Your task to perform on an android device: turn on location history Image 0: 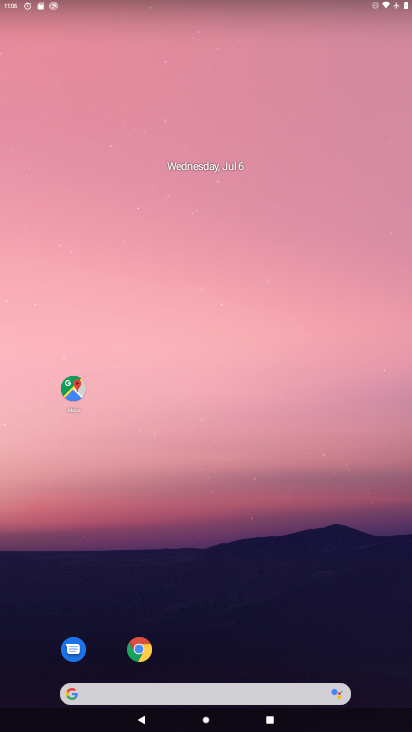
Step 0: press back button
Your task to perform on an android device: turn on location history Image 1: 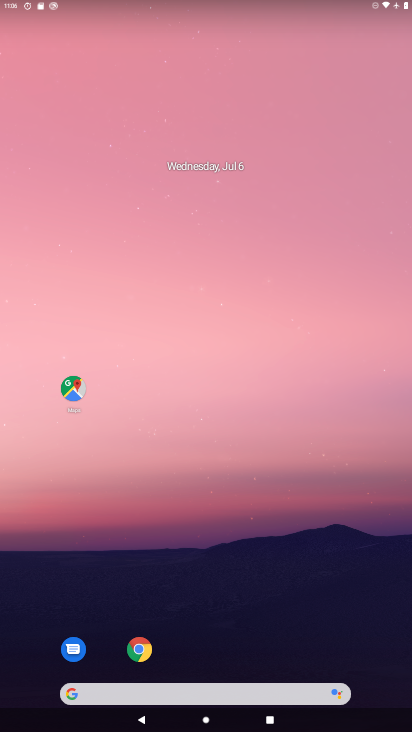
Step 1: drag from (401, 688) to (253, 43)
Your task to perform on an android device: turn on location history Image 2: 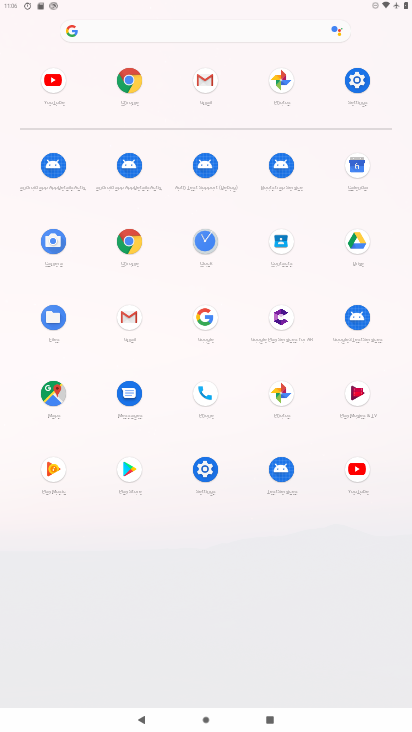
Step 2: click (355, 83)
Your task to perform on an android device: turn on location history Image 3: 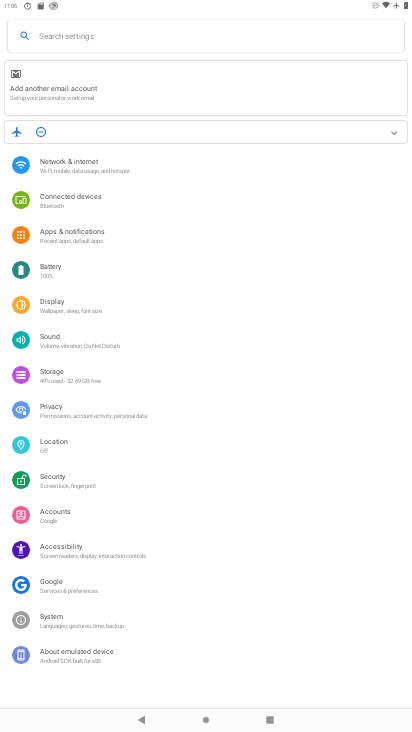
Step 3: click (52, 438)
Your task to perform on an android device: turn on location history Image 4: 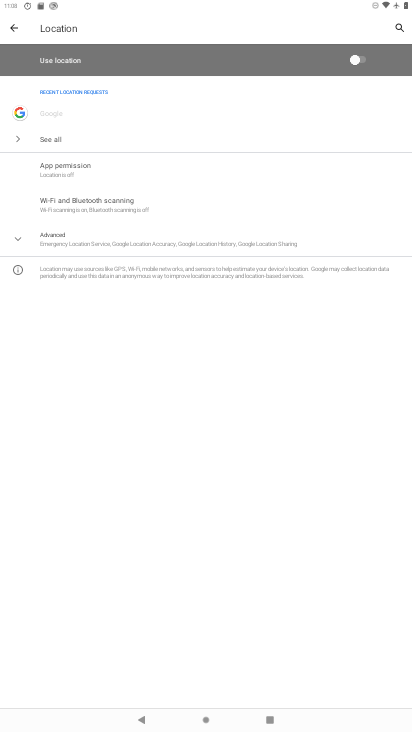
Step 4: click (361, 56)
Your task to perform on an android device: turn on location history Image 5: 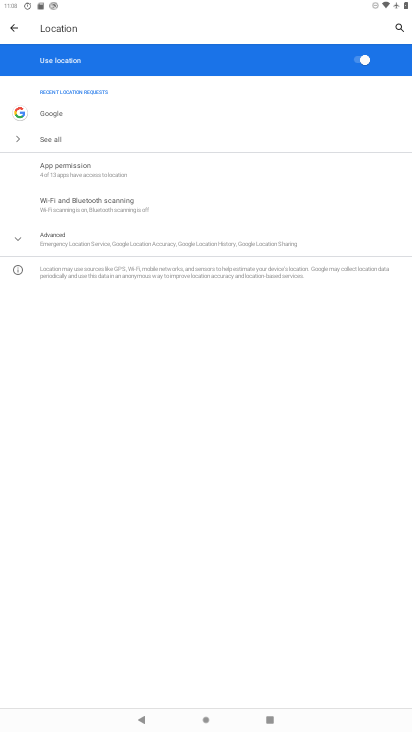
Step 5: task complete